Your task to perform on an android device: Open the calendar and show me this week's events Image 0: 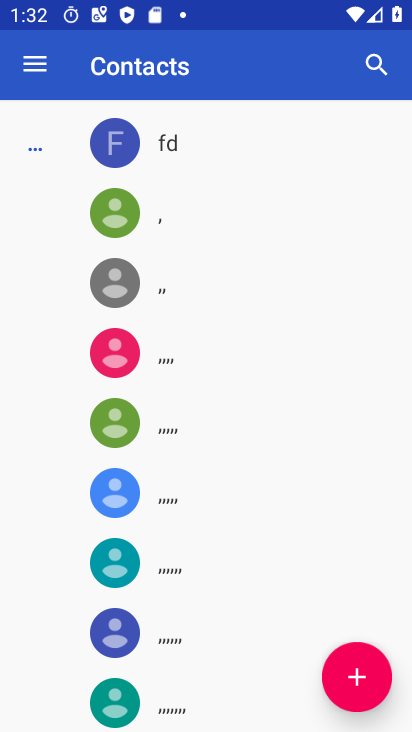
Step 0: press home button
Your task to perform on an android device: Open the calendar and show me this week's events Image 1: 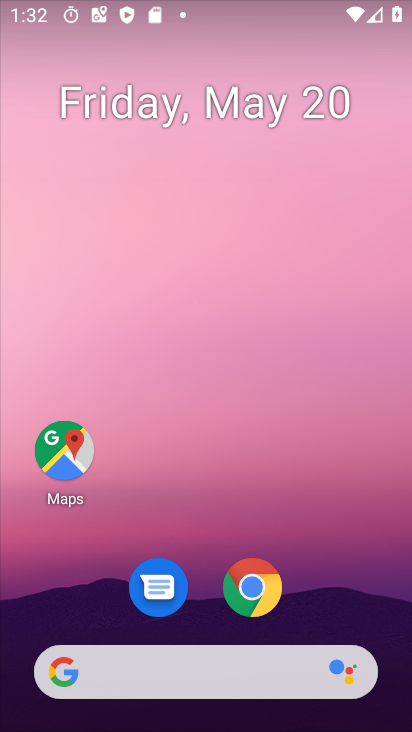
Step 1: drag from (331, 623) to (338, 186)
Your task to perform on an android device: Open the calendar and show me this week's events Image 2: 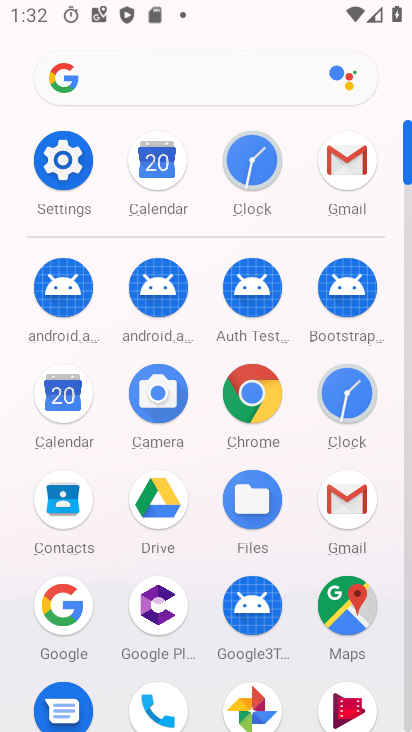
Step 2: click (170, 160)
Your task to perform on an android device: Open the calendar and show me this week's events Image 3: 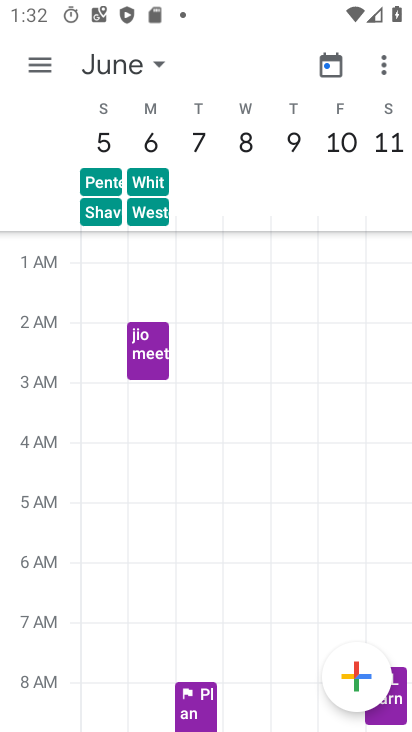
Step 3: click (119, 73)
Your task to perform on an android device: Open the calendar and show me this week's events Image 4: 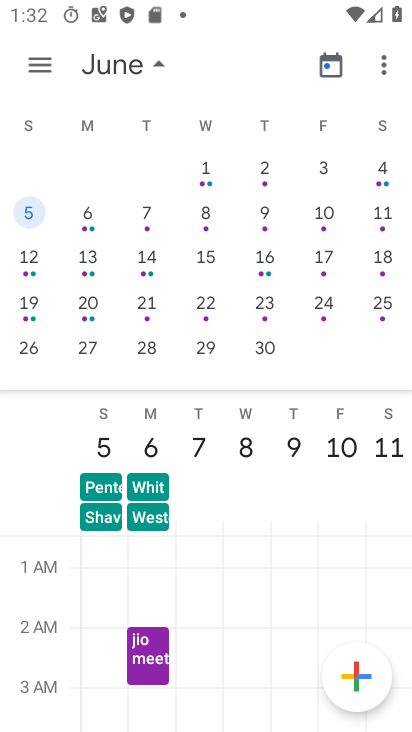
Step 4: drag from (26, 250) to (352, 248)
Your task to perform on an android device: Open the calendar and show me this week's events Image 5: 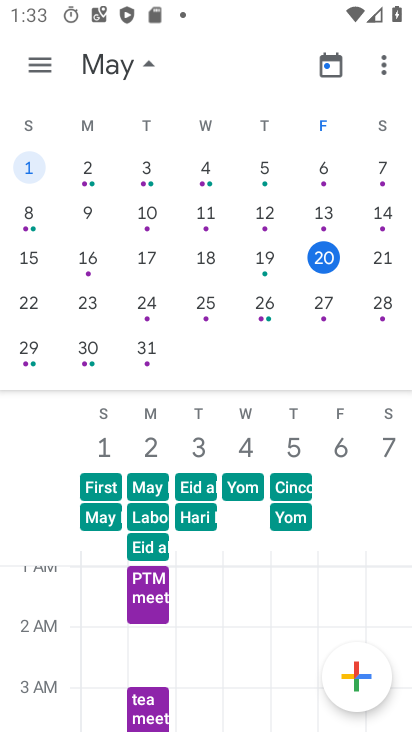
Step 5: click (320, 262)
Your task to perform on an android device: Open the calendar and show me this week's events Image 6: 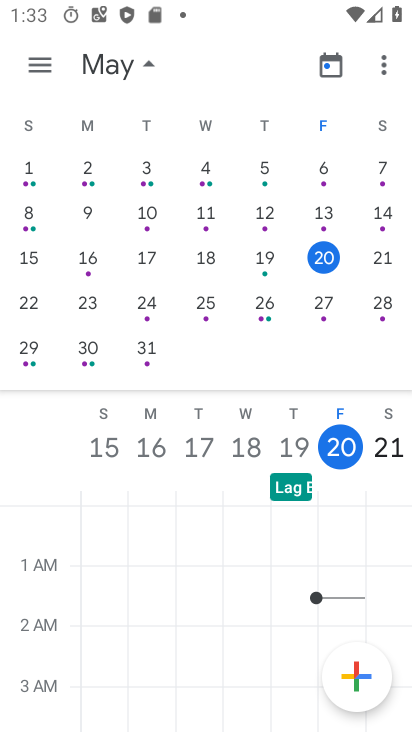
Step 6: task complete